Your task to perform on an android device: Show me popular videos on Youtube Image 0: 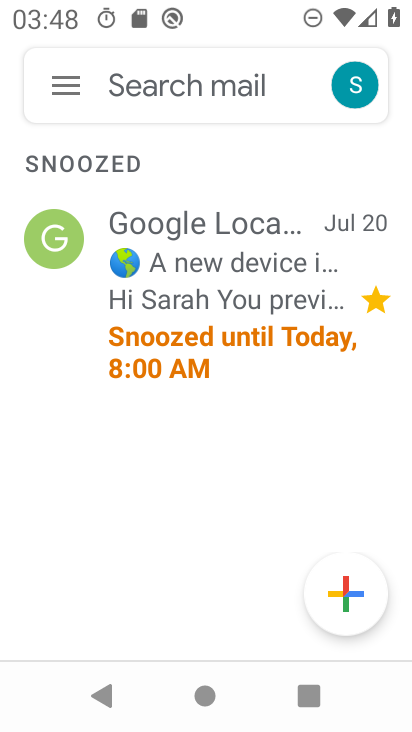
Step 0: press home button
Your task to perform on an android device: Show me popular videos on Youtube Image 1: 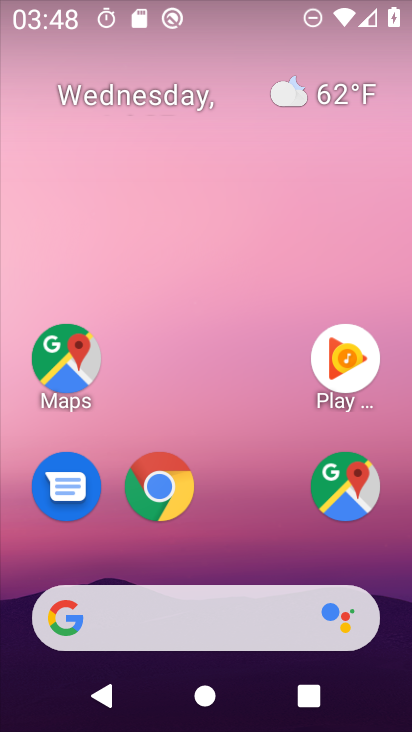
Step 1: drag from (248, 545) to (240, 115)
Your task to perform on an android device: Show me popular videos on Youtube Image 2: 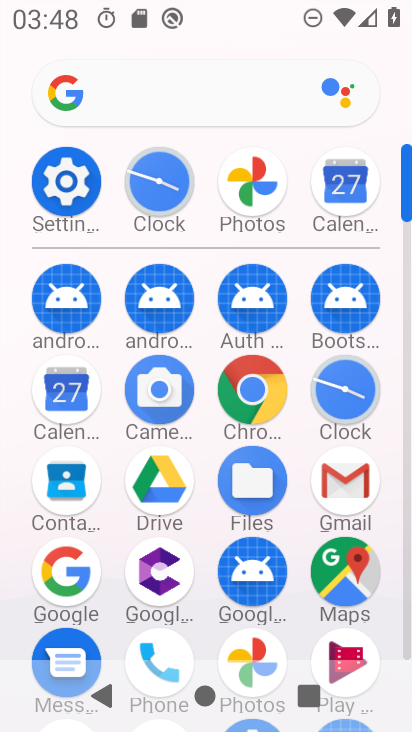
Step 2: drag from (386, 522) to (385, 279)
Your task to perform on an android device: Show me popular videos on Youtube Image 3: 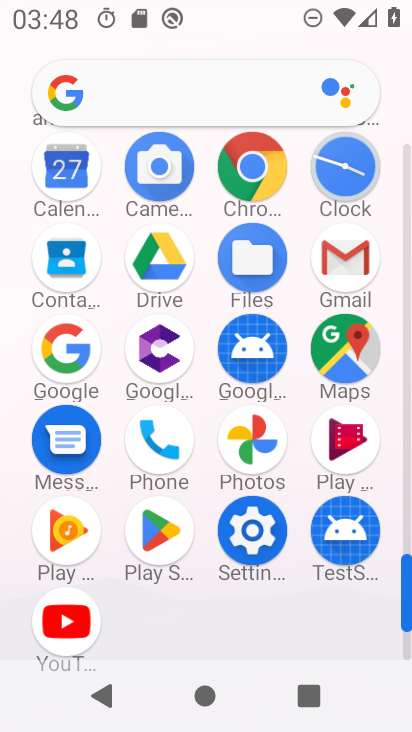
Step 3: click (62, 618)
Your task to perform on an android device: Show me popular videos on Youtube Image 4: 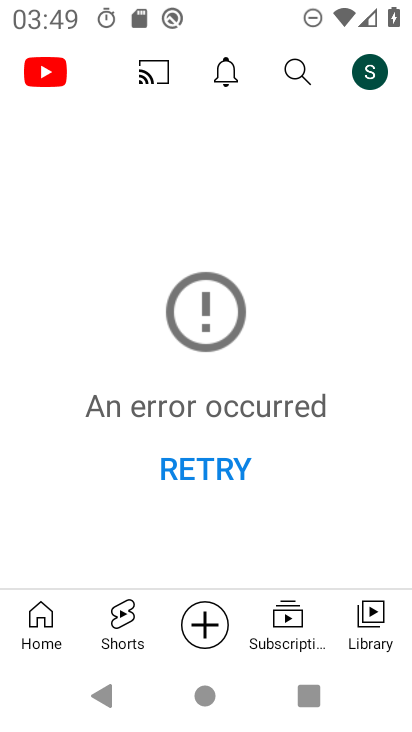
Step 4: click (42, 614)
Your task to perform on an android device: Show me popular videos on Youtube Image 5: 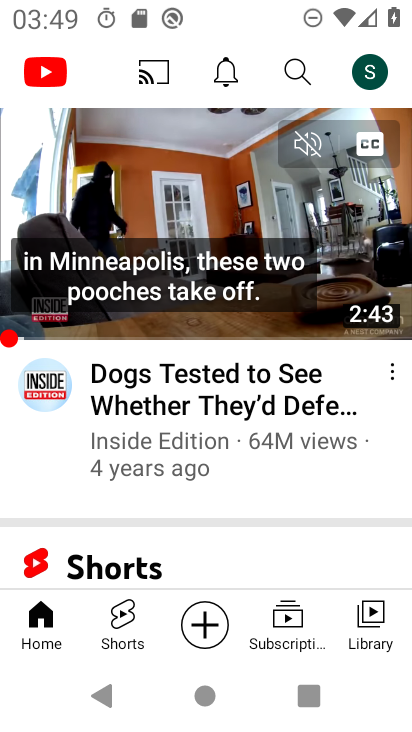
Step 5: task complete